Your task to perform on an android device: Open Chrome and go to the settings page Image 0: 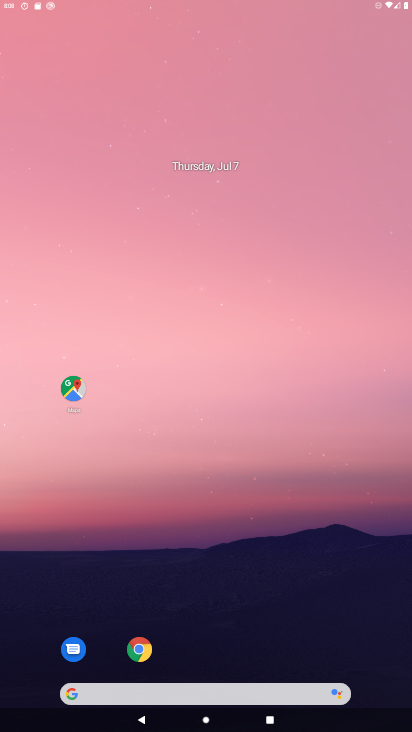
Step 0: click (247, 56)
Your task to perform on an android device: Open Chrome and go to the settings page Image 1: 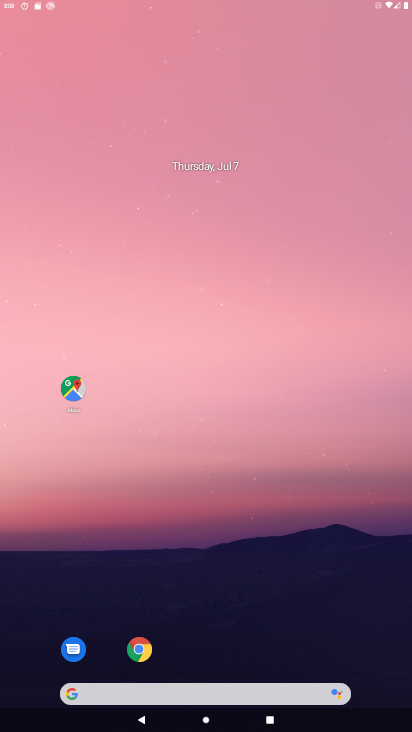
Step 1: press home button
Your task to perform on an android device: Open Chrome and go to the settings page Image 2: 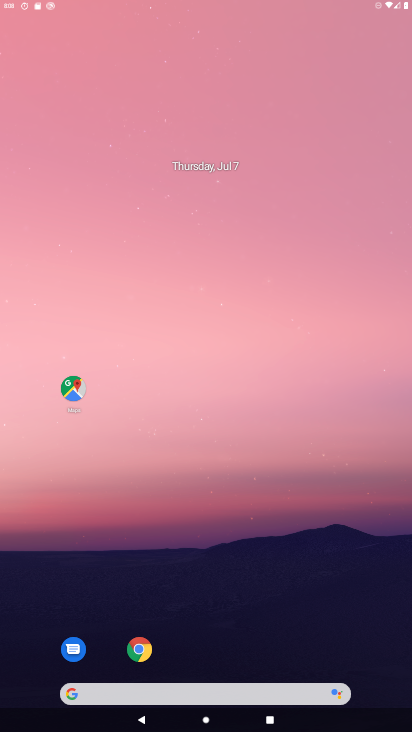
Step 2: press home button
Your task to perform on an android device: Open Chrome and go to the settings page Image 3: 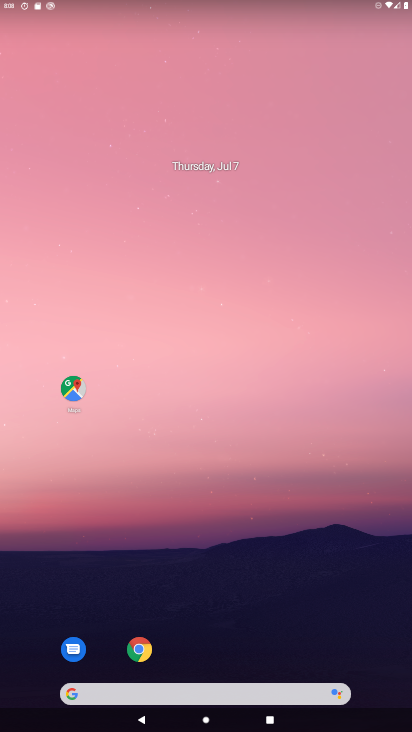
Step 3: click (140, 644)
Your task to perform on an android device: Open Chrome and go to the settings page Image 4: 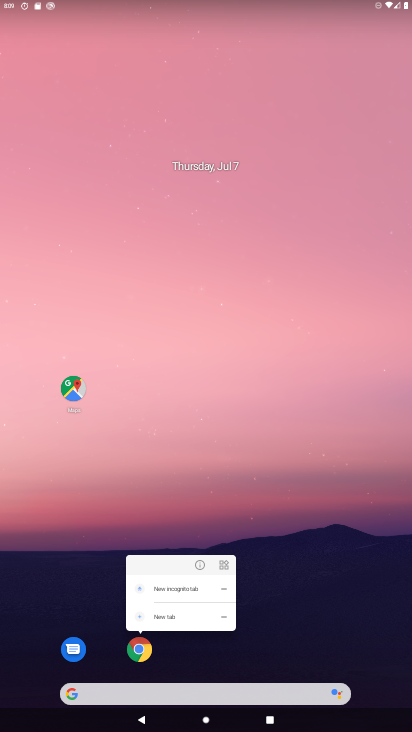
Step 4: click (141, 651)
Your task to perform on an android device: Open Chrome and go to the settings page Image 5: 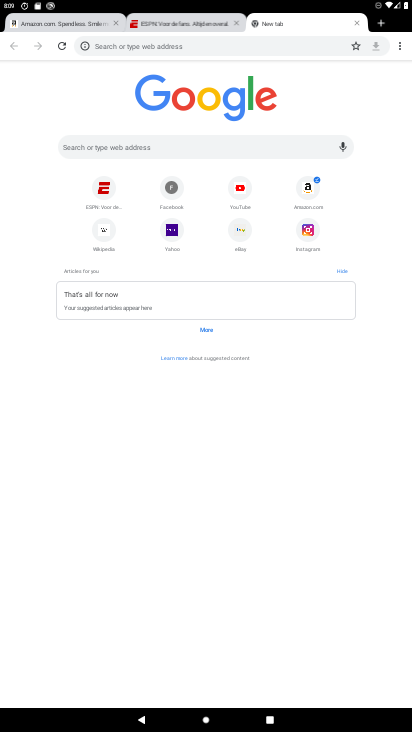
Step 5: click (398, 38)
Your task to perform on an android device: Open Chrome and go to the settings page Image 6: 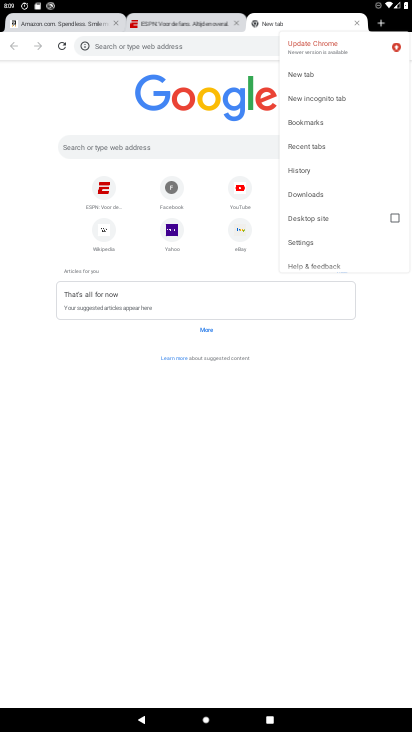
Step 6: click (316, 242)
Your task to perform on an android device: Open Chrome and go to the settings page Image 7: 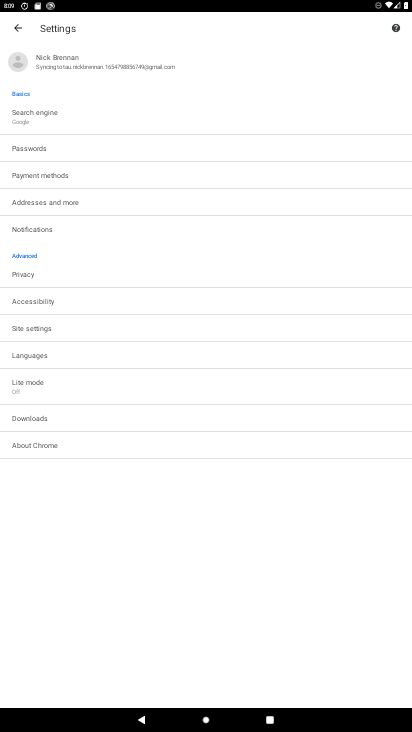
Step 7: task complete